Your task to perform on an android device: Turn on the flashlight Image 0: 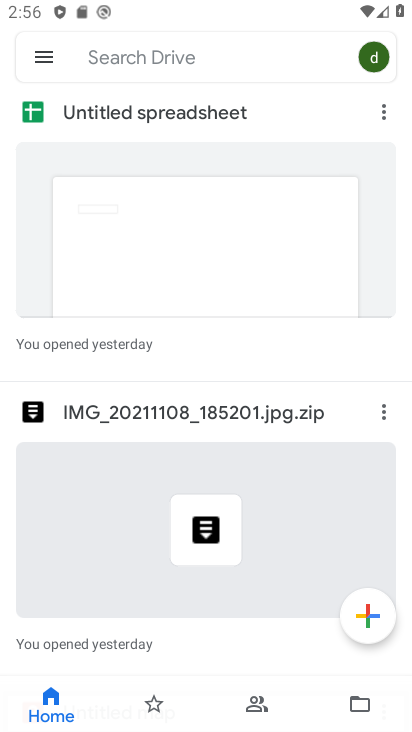
Step 0: press home button
Your task to perform on an android device: Turn on the flashlight Image 1: 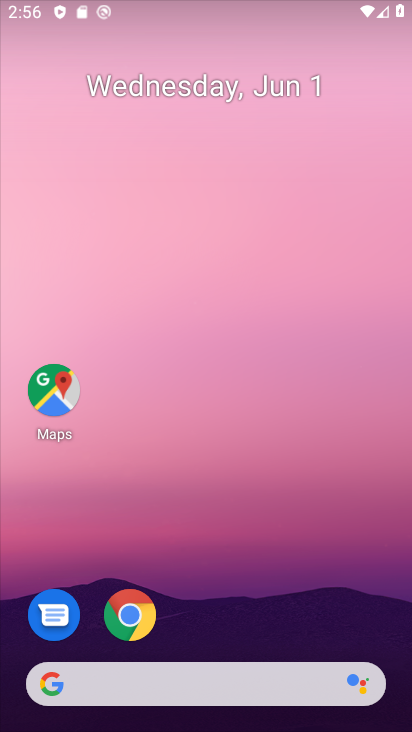
Step 1: drag from (303, 531) to (356, 26)
Your task to perform on an android device: Turn on the flashlight Image 2: 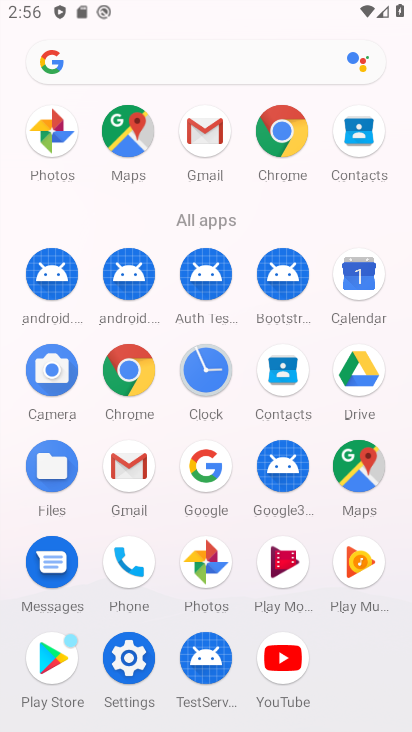
Step 2: click (130, 664)
Your task to perform on an android device: Turn on the flashlight Image 3: 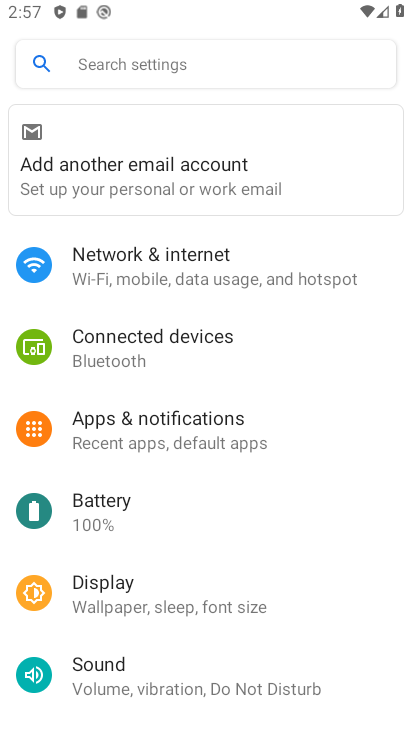
Step 3: task complete